Your task to perform on an android device: install app "Upside-Cash back on gas & food" Image 0: 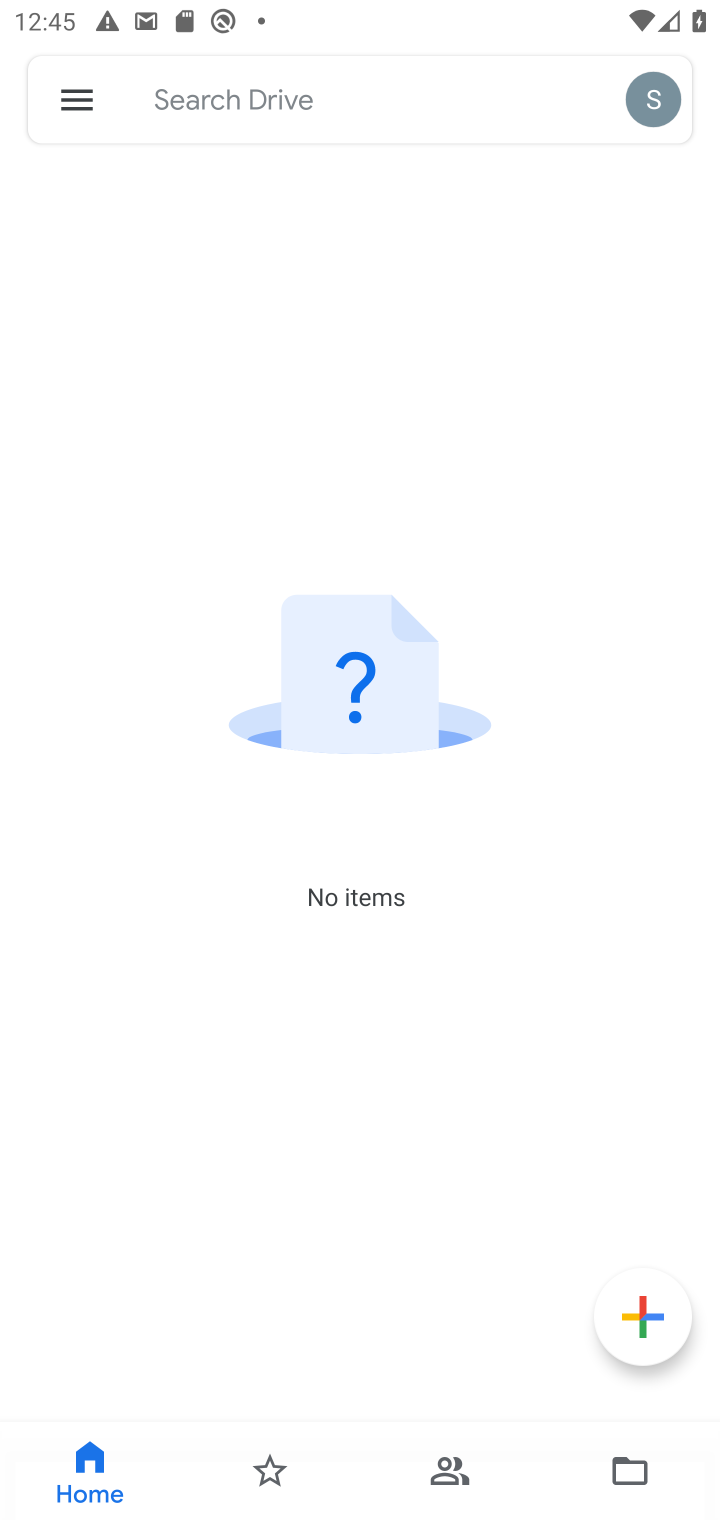
Step 0: press home button
Your task to perform on an android device: install app "Upside-Cash back on gas & food" Image 1: 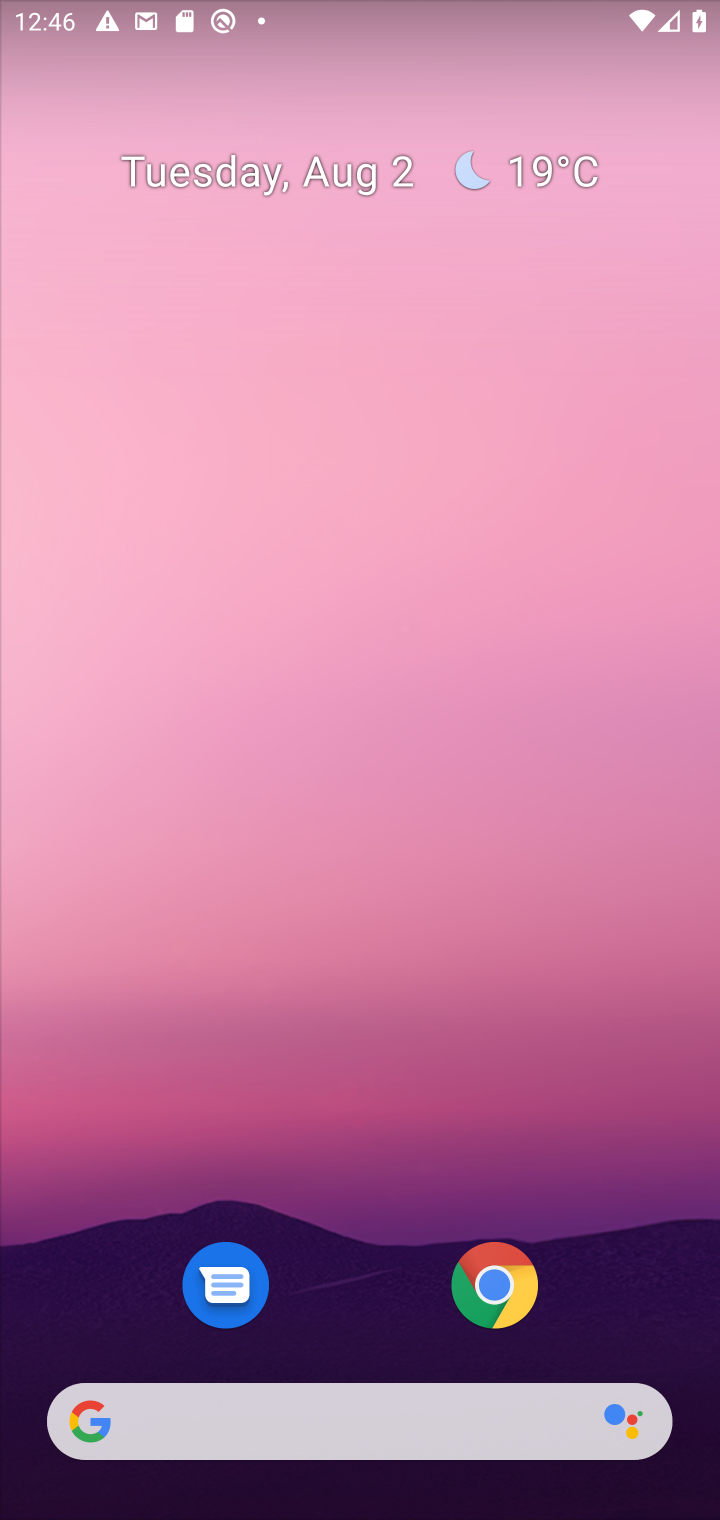
Step 1: drag from (312, 1286) to (297, 182)
Your task to perform on an android device: install app "Upside-Cash back on gas & food" Image 2: 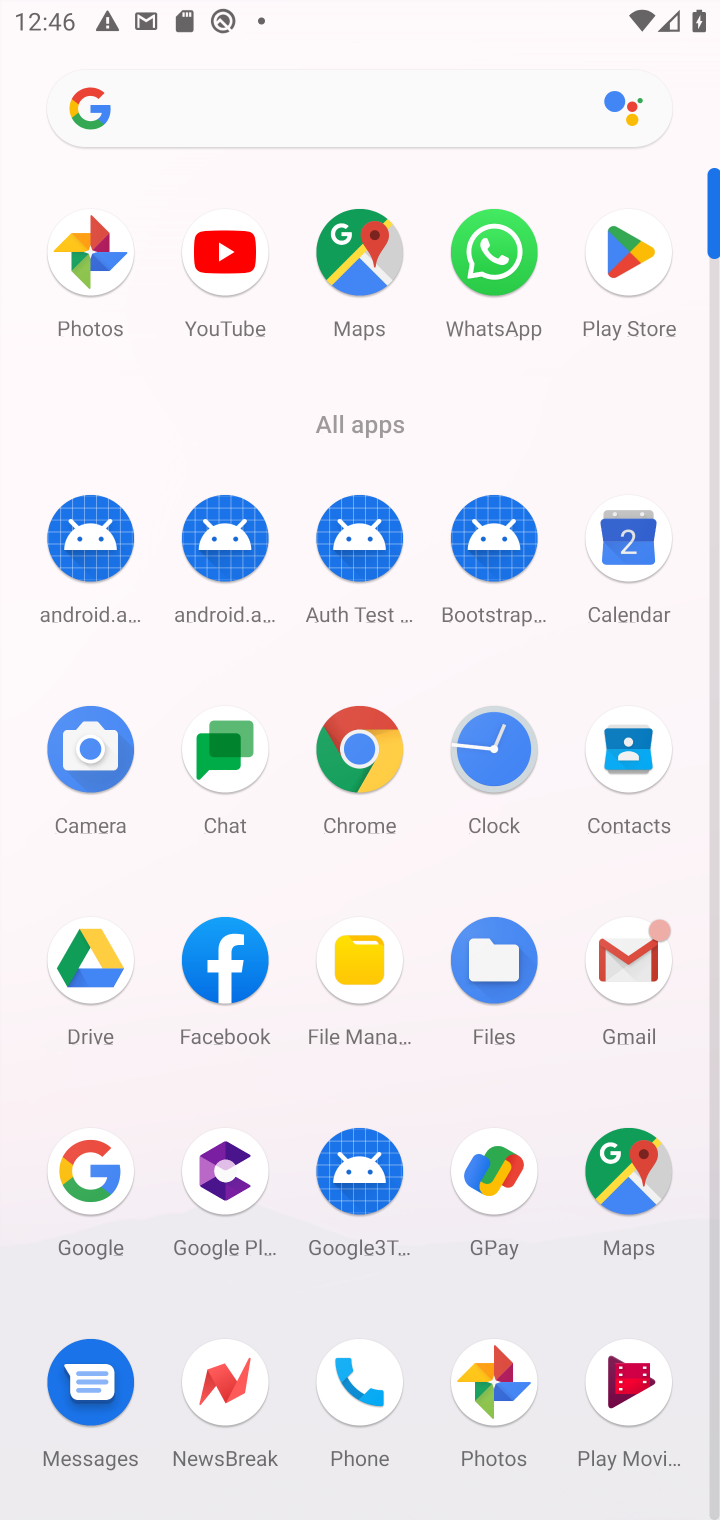
Step 2: click (610, 292)
Your task to perform on an android device: install app "Upside-Cash back on gas & food" Image 3: 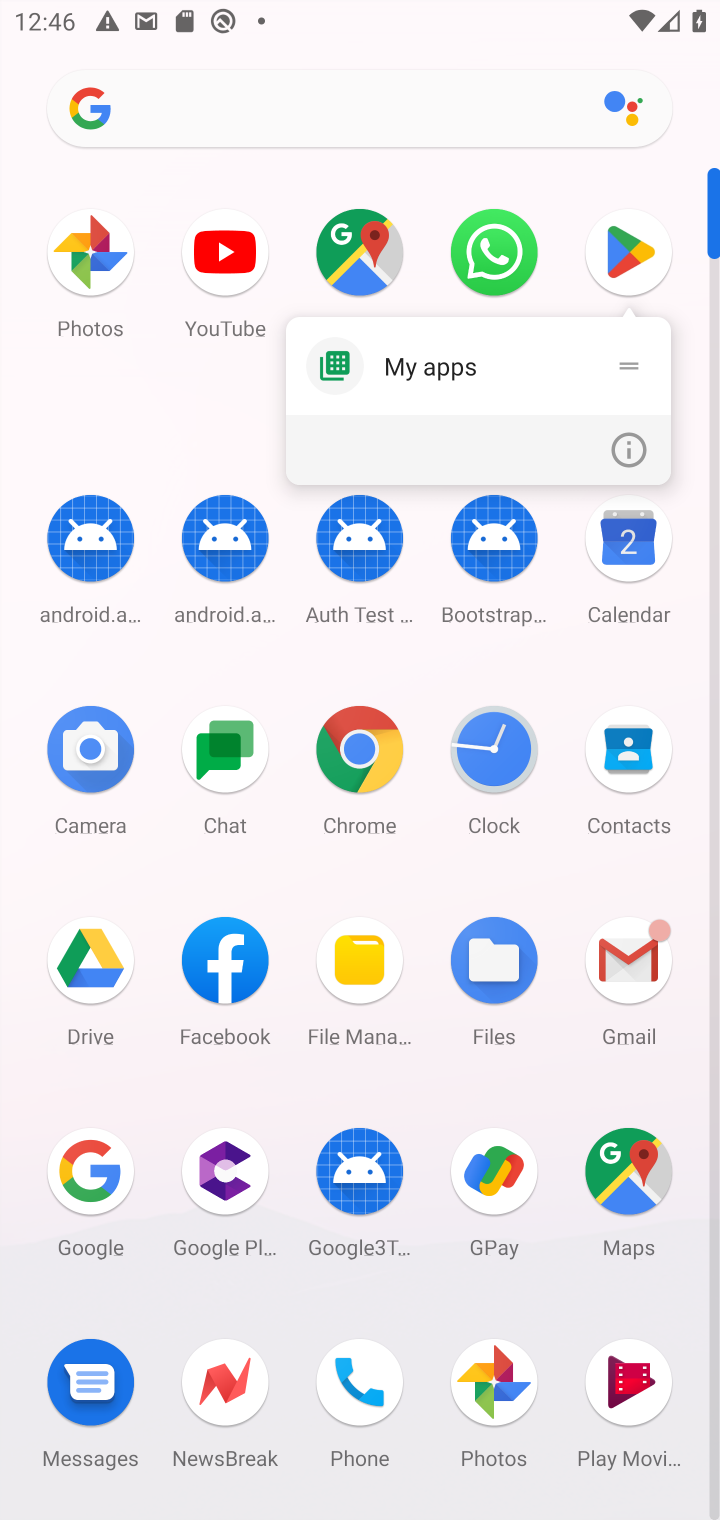
Step 3: click (610, 292)
Your task to perform on an android device: install app "Upside-Cash back on gas & food" Image 4: 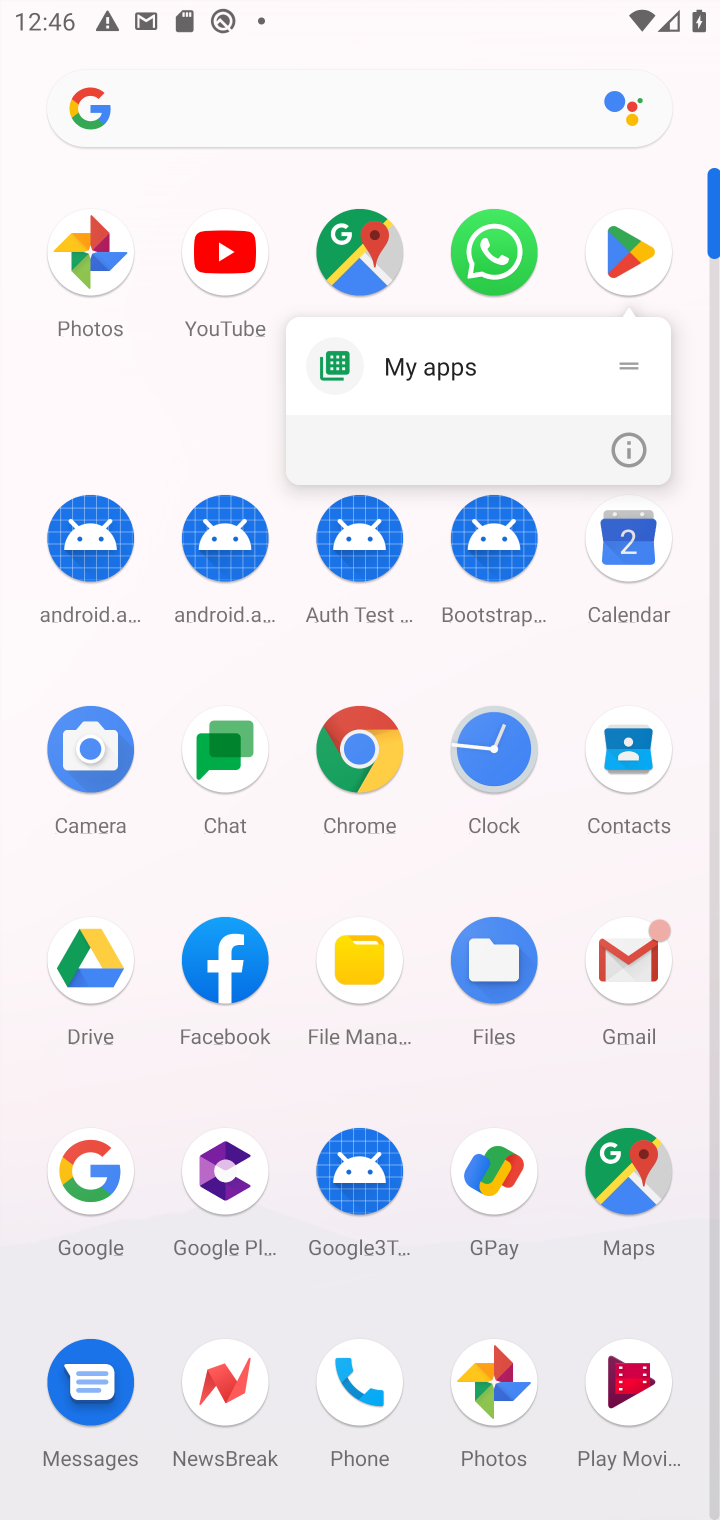
Step 4: click (626, 223)
Your task to perform on an android device: install app "Upside-Cash back on gas & food" Image 5: 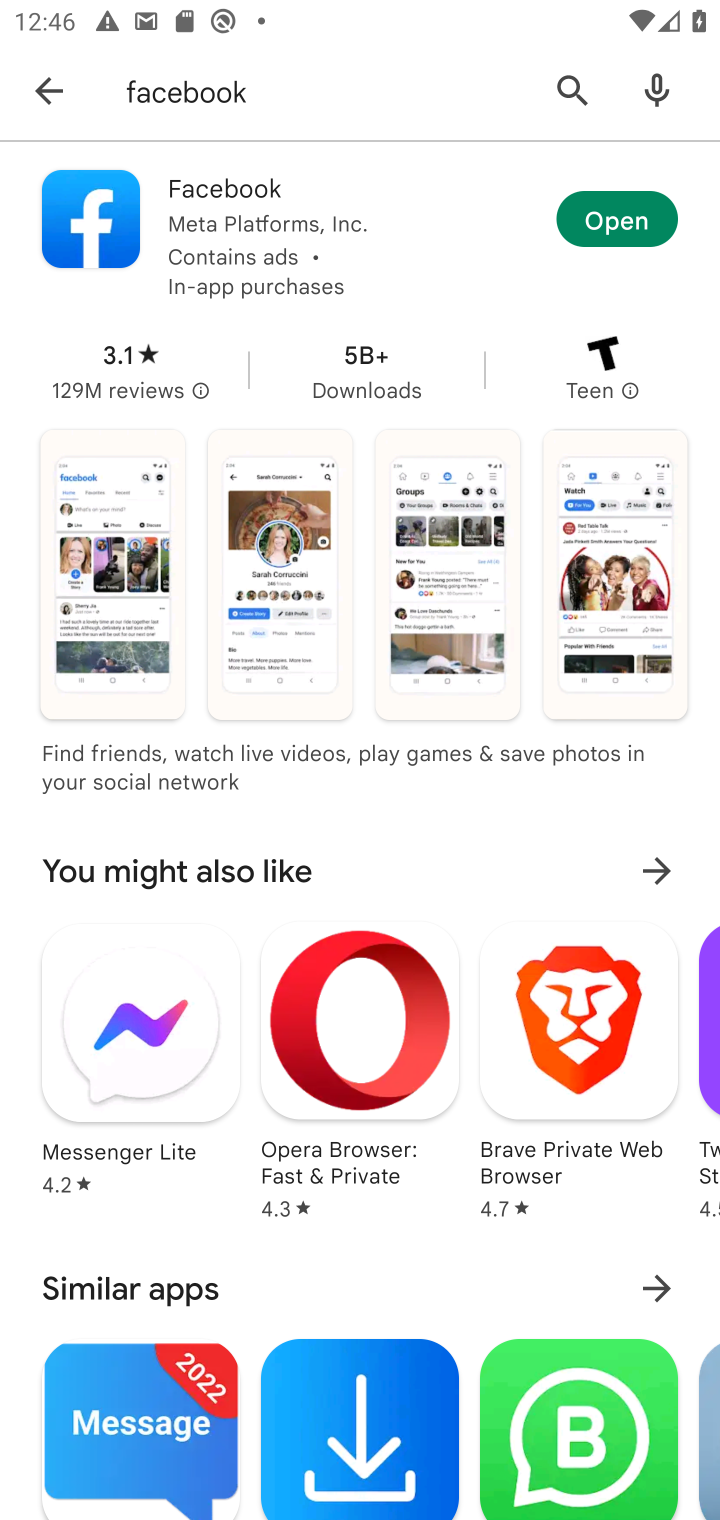
Step 5: click (575, 95)
Your task to perform on an android device: install app "Upside-Cash back on gas & food" Image 6: 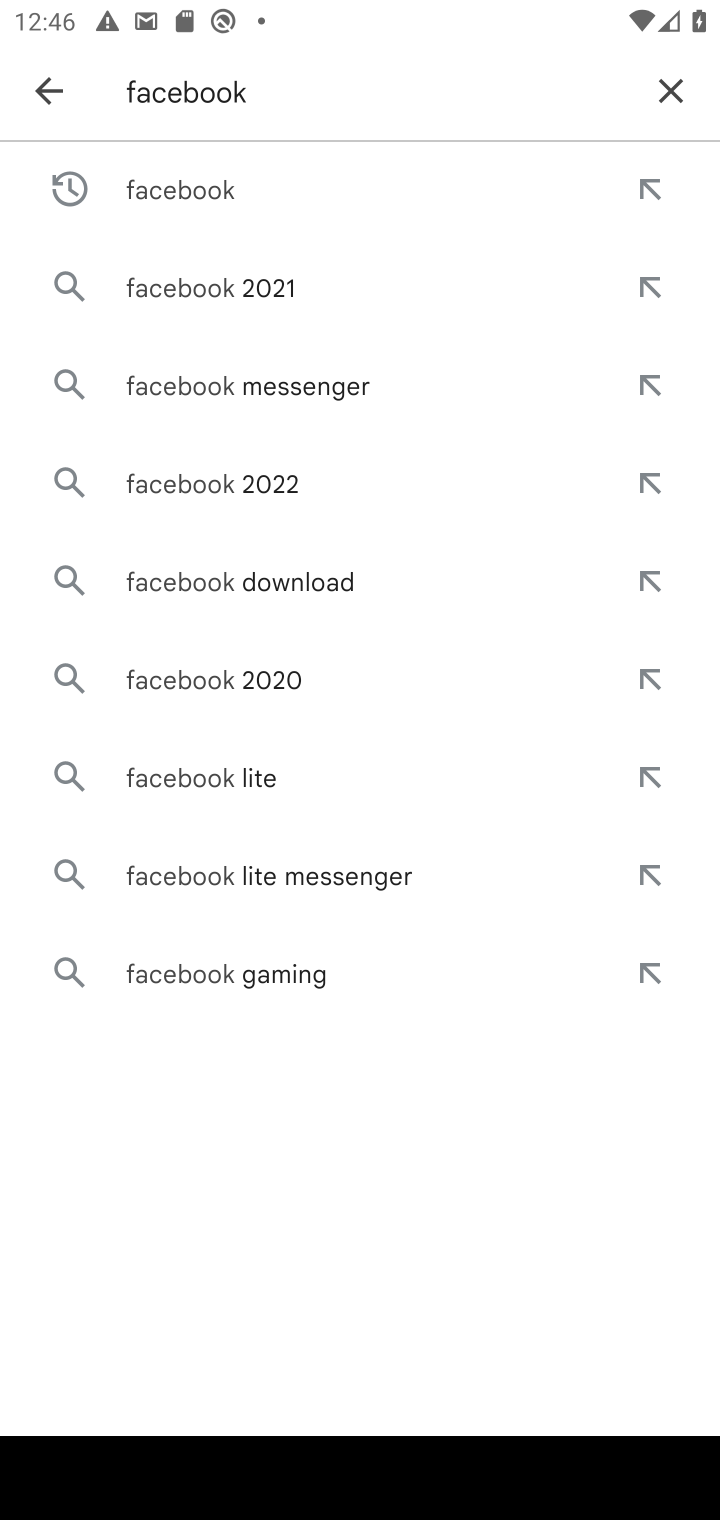
Step 6: click (668, 100)
Your task to perform on an android device: install app "Upside-Cash back on gas & food" Image 7: 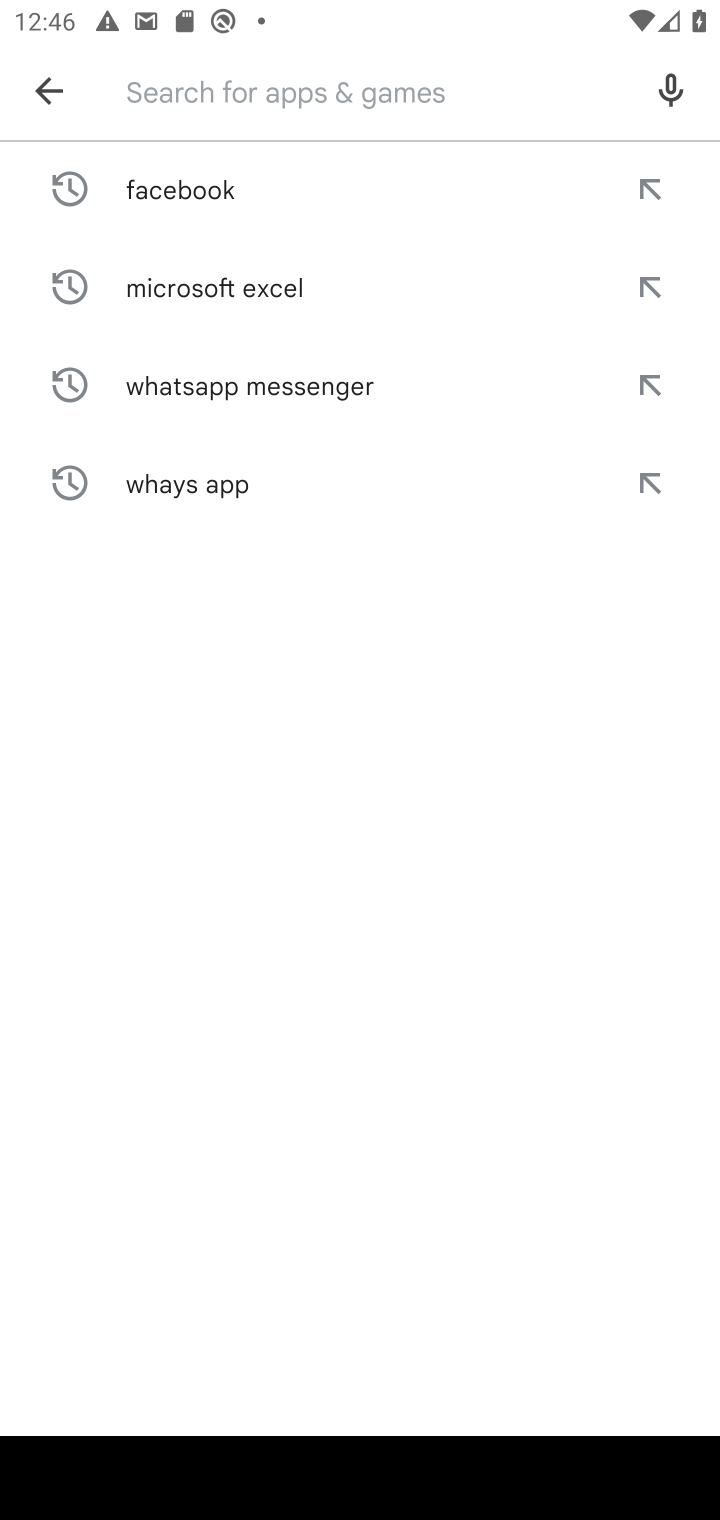
Step 7: click (532, 90)
Your task to perform on an android device: install app "Upside-Cash back on gas & food" Image 8: 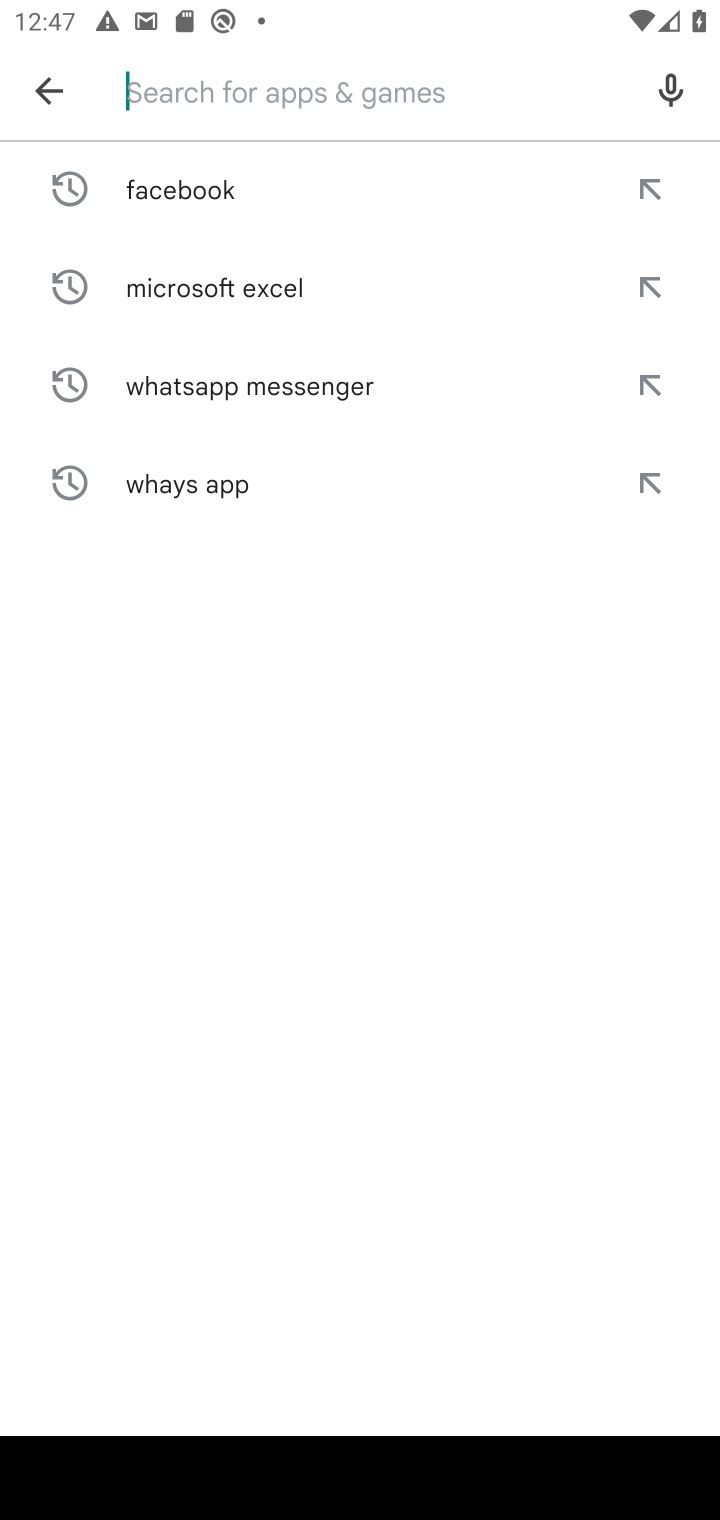
Step 8: type "Upside-Cash"
Your task to perform on an android device: install app "Upside-Cash back on gas & food" Image 9: 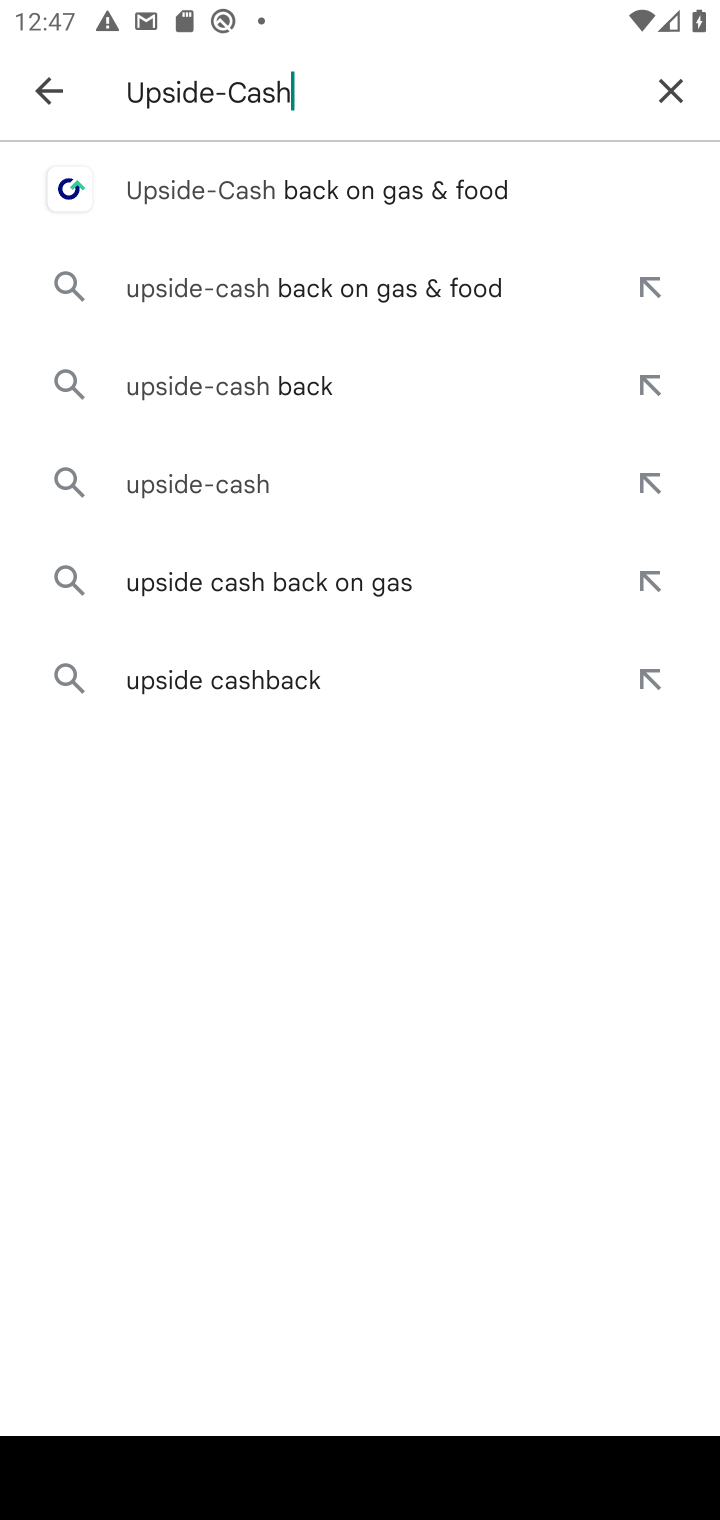
Step 9: click (273, 185)
Your task to perform on an android device: install app "Upside-Cash back on gas & food" Image 10: 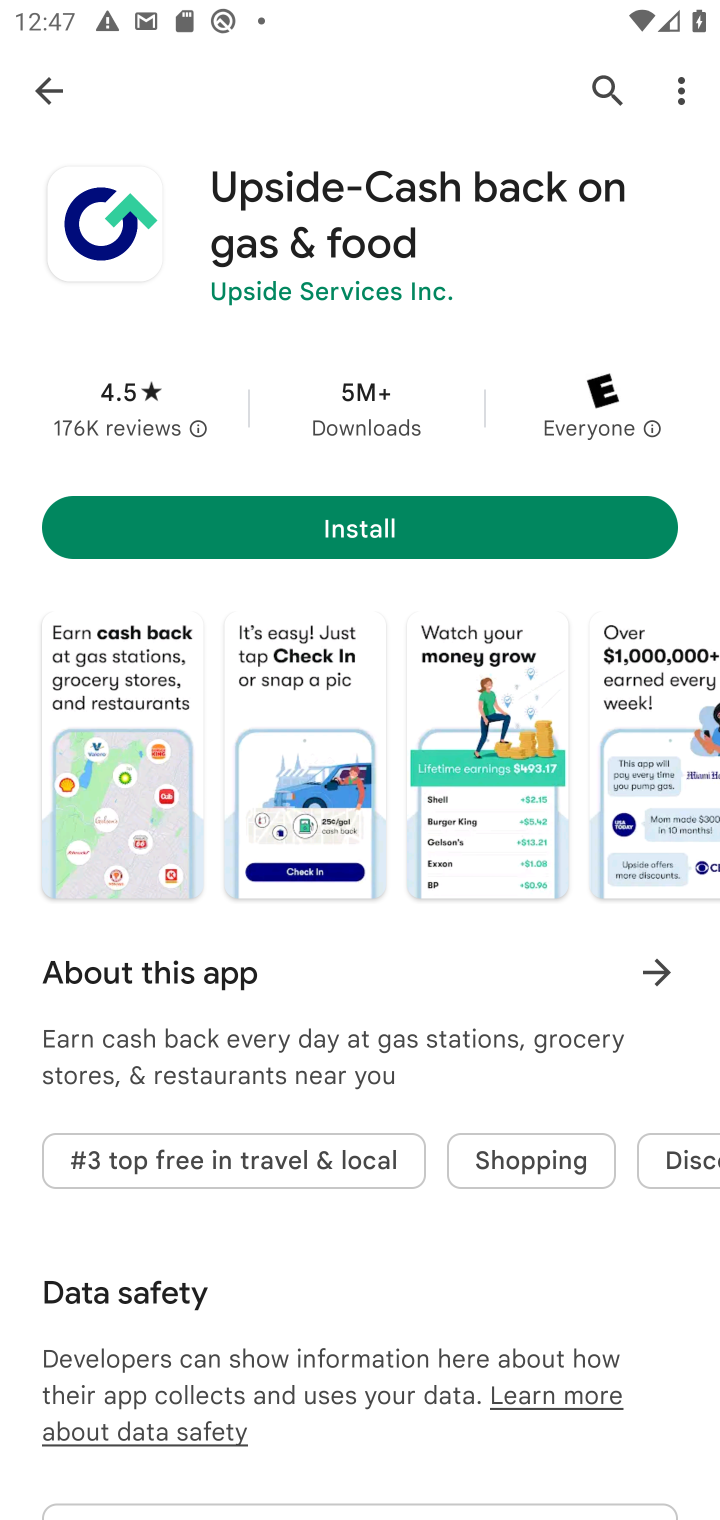
Step 10: click (313, 499)
Your task to perform on an android device: install app "Upside-Cash back on gas & food" Image 11: 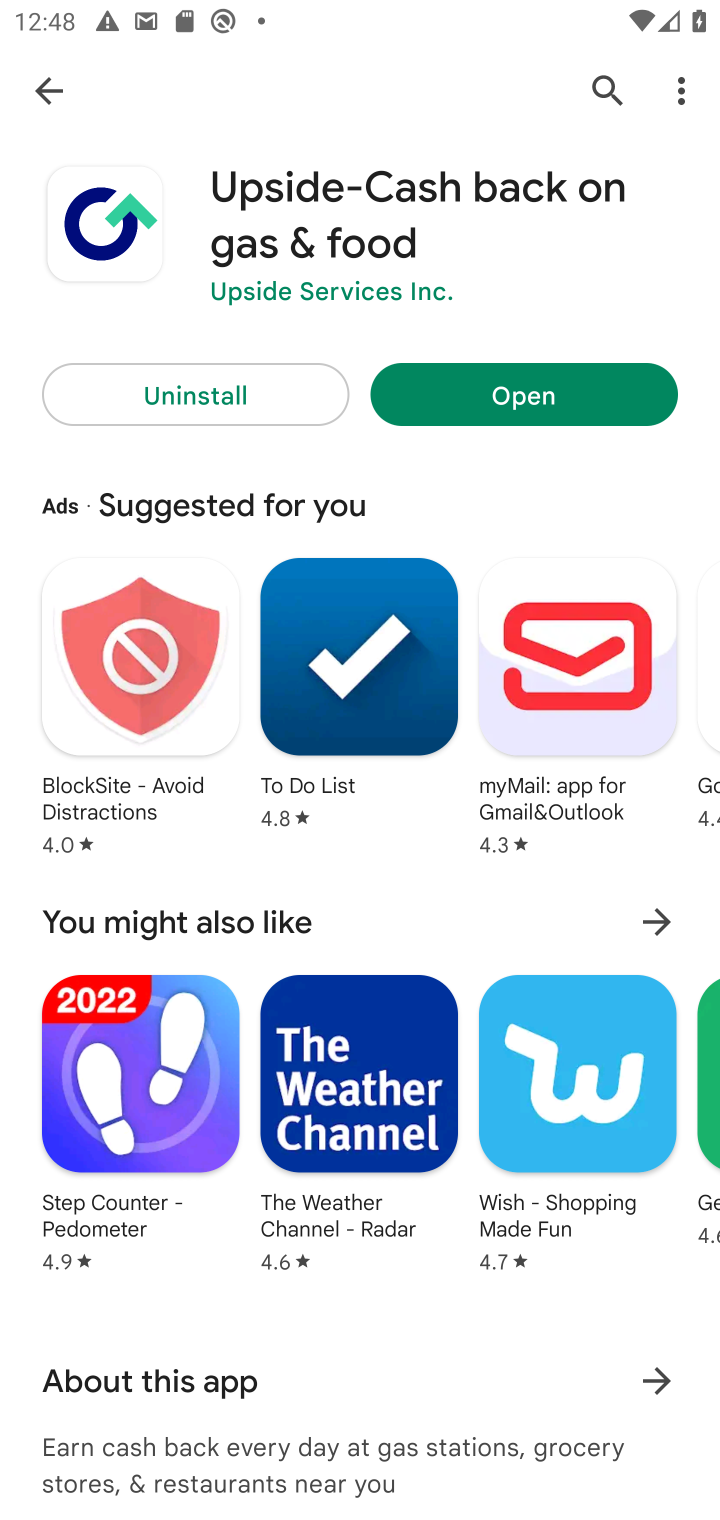
Step 11: task complete